Your task to perform on an android device: turn off picture-in-picture Image 0: 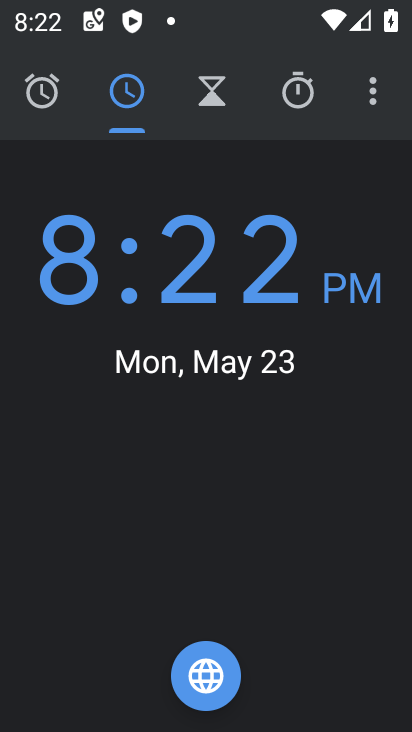
Step 0: press home button
Your task to perform on an android device: turn off picture-in-picture Image 1: 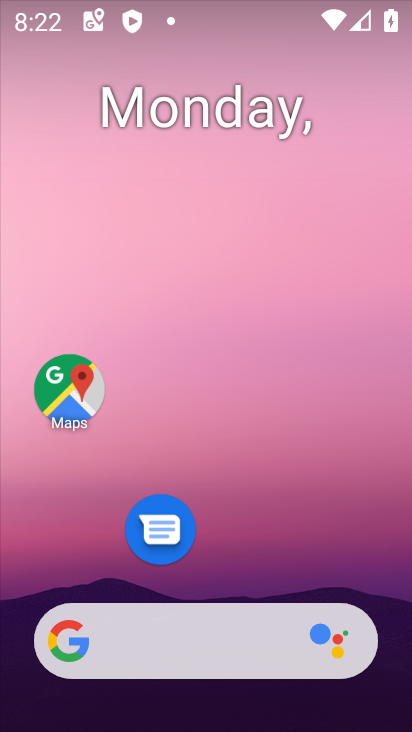
Step 1: drag from (242, 563) to (237, 105)
Your task to perform on an android device: turn off picture-in-picture Image 2: 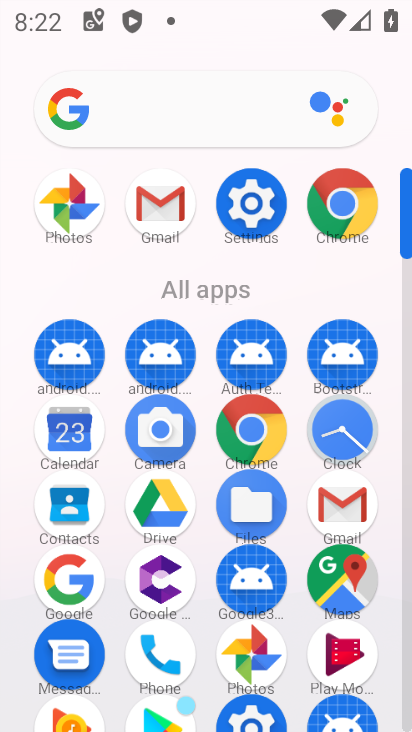
Step 2: click (321, 222)
Your task to perform on an android device: turn off picture-in-picture Image 3: 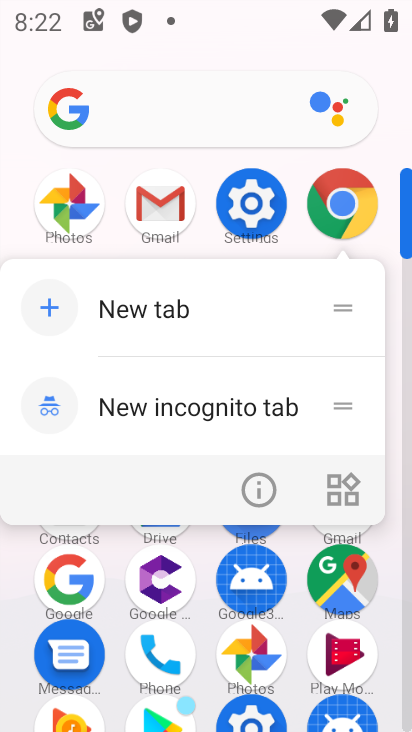
Step 3: click (264, 489)
Your task to perform on an android device: turn off picture-in-picture Image 4: 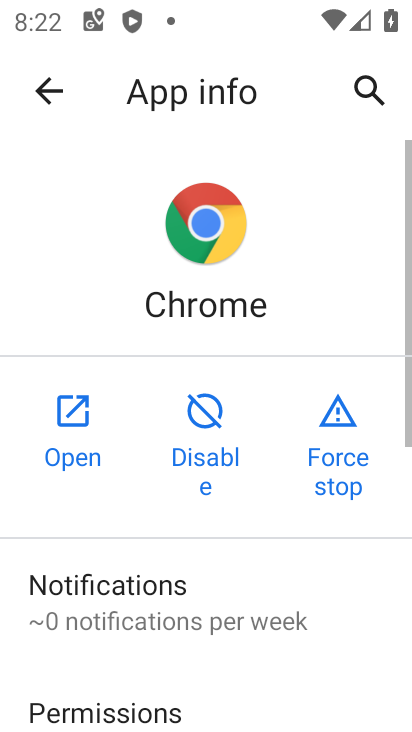
Step 4: drag from (188, 683) to (213, 206)
Your task to perform on an android device: turn off picture-in-picture Image 5: 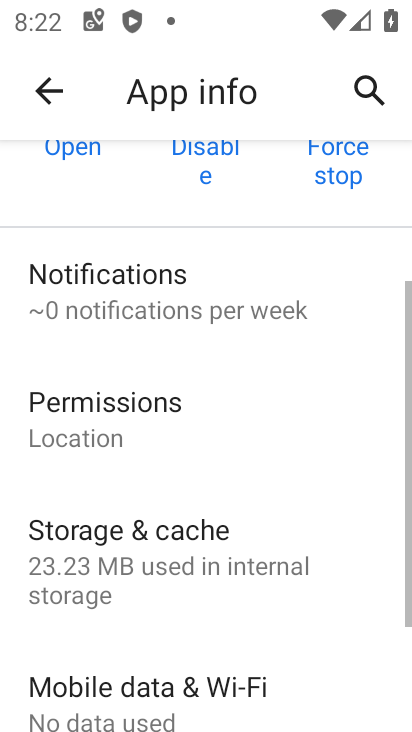
Step 5: drag from (251, 627) to (269, 295)
Your task to perform on an android device: turn off picture-in-picture Image 6: 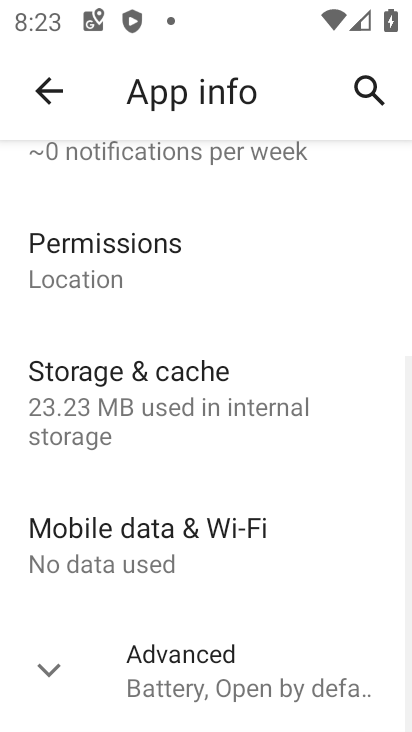
Step 6: click (273, 674)
Your task to perform on an android device: turn off picture-in-picture Image 7: 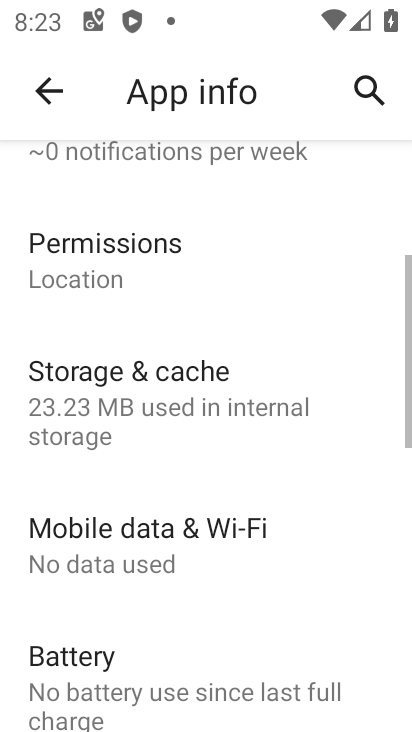
Step 7: drag from (258, 674) to (249, 203)
Your task to perform on an android device: turn off picture-in-picture Image 8: 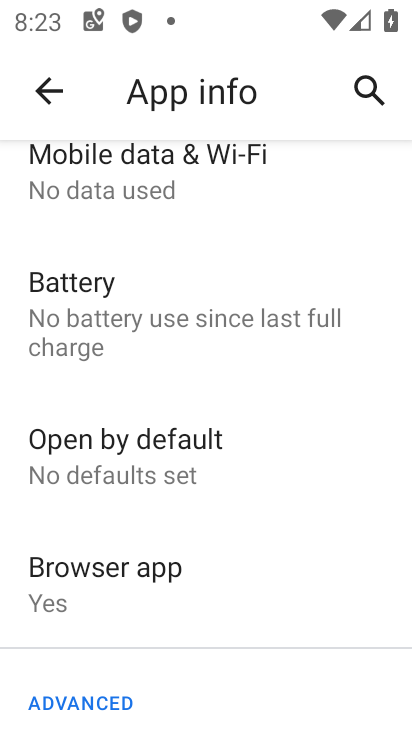
Step 8: drag from (253, 640) to (268, 268)
Your task to perform on an android device: turn off picture-in-picture Image 9: 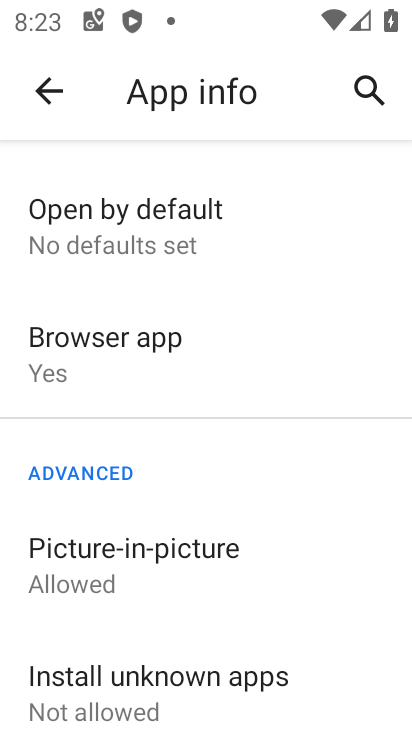
Step 9: click (153, 579)
Your task to perform on an android device: turn off picture-in-picture Image 10: 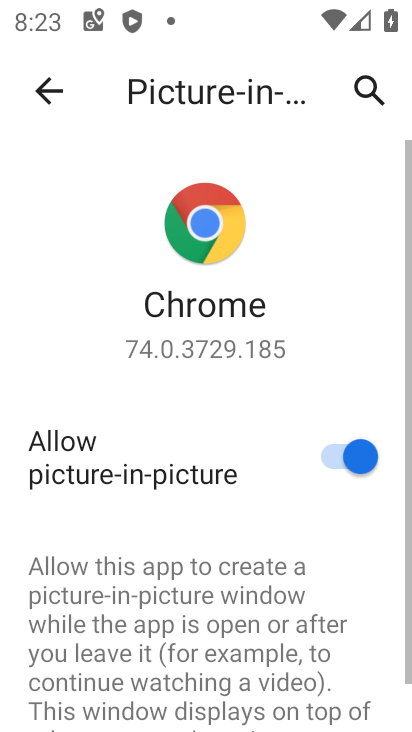
Step 10: click (329, 446)
Your task to perform on an android device: turn off picture-in-picture Image 11: 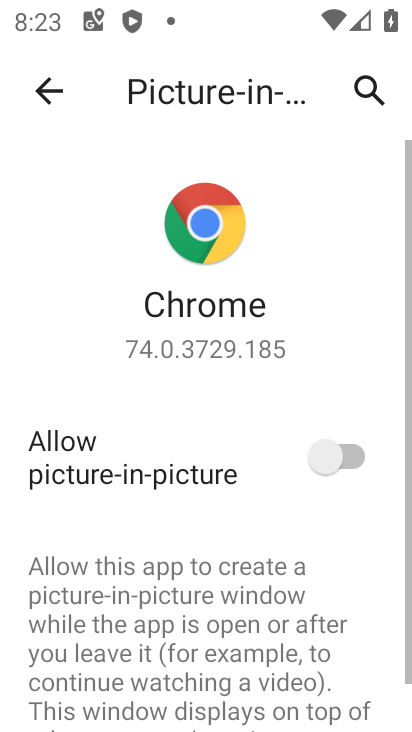
Step 11: task complete